Your task to perform on an android device: set the stopwatch Image 0: 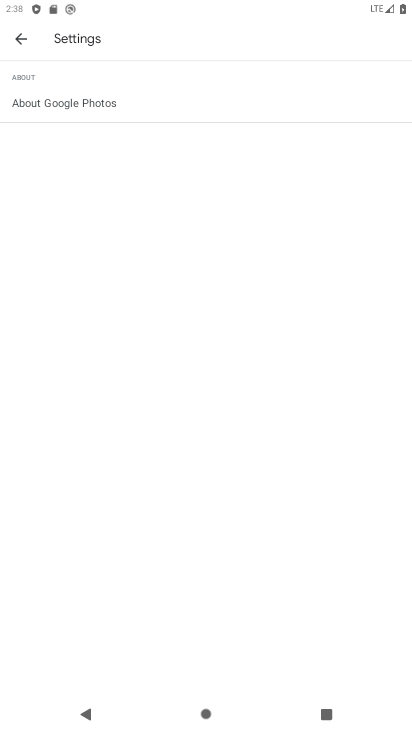
Step 0: click (250, 639)
Your task to perform on an android device: set the stopwatch Image 1: 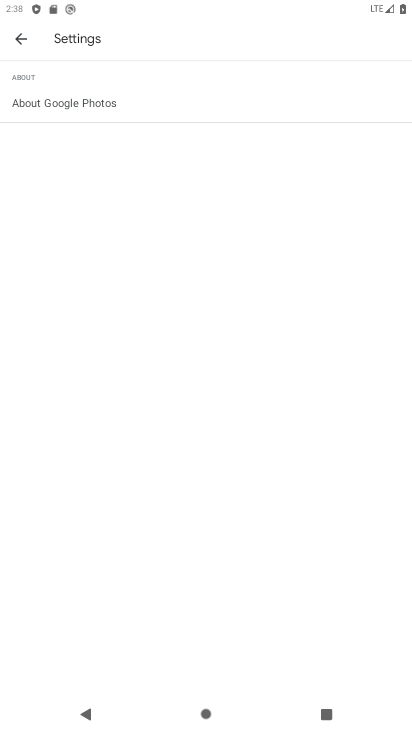
Step 1: press home button
Your task to perform on an android device: set the stopwatch Image 2: 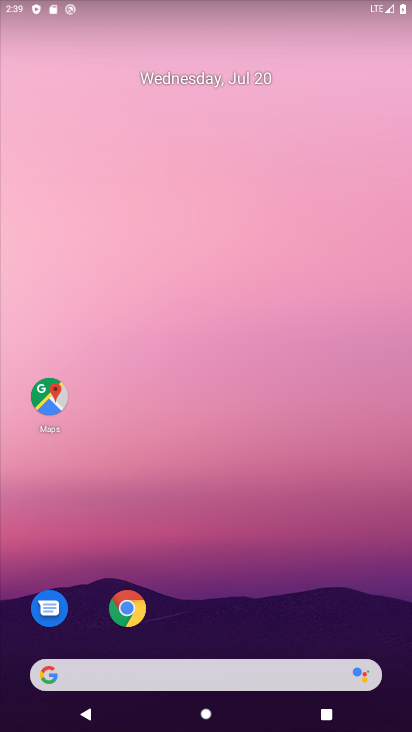
Step 2: drag from (200, 624) to (143, 66)
Your task to perform on an android device: set the stopwatch Image 3: 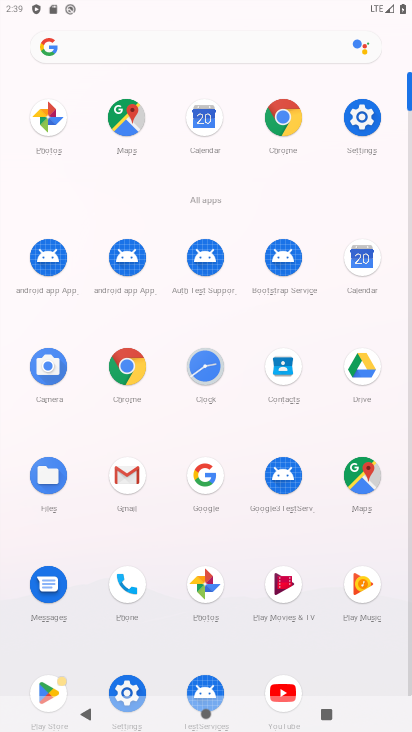
Step 3: click (203, 369)
Your task to perform on an android device: set the stopwatch Image 4: 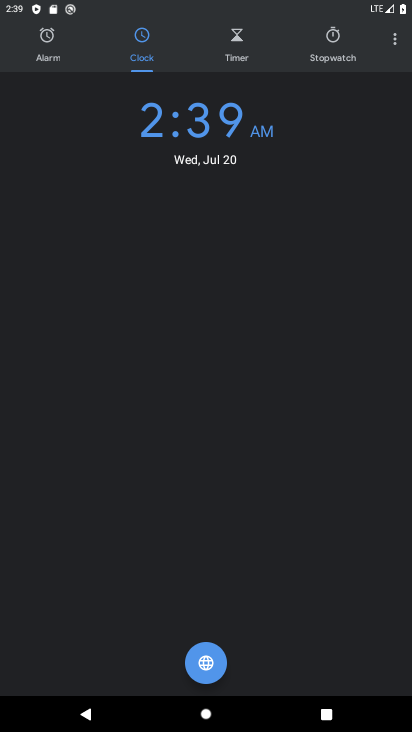
Step 4: click (341, 46)
Your task to perform on an android device: set the stopwatch Image 5: 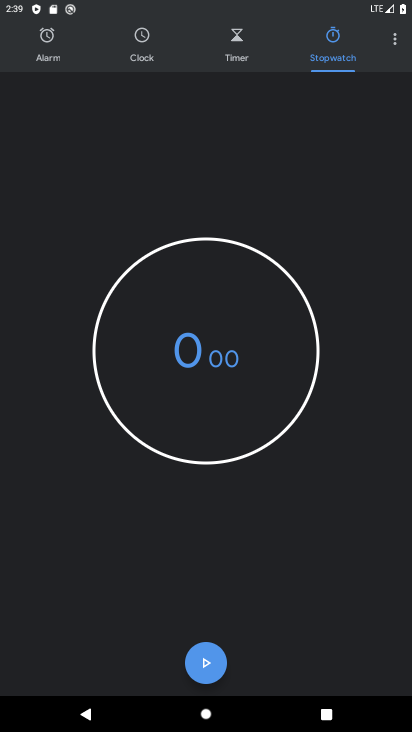
Step 5: task complete